Your task to perform on an android device: turn on improve location accuracy Image 0: 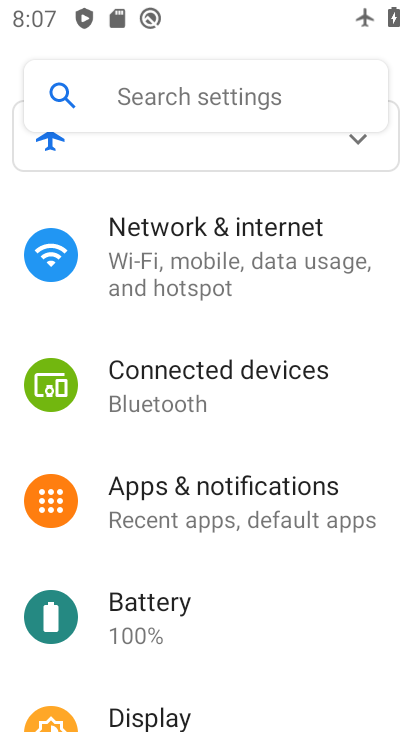
Step 0: drag from (342, 430) to (292, 78)
Your task to perform on an android device: turn on improve location accuracy Image 1: 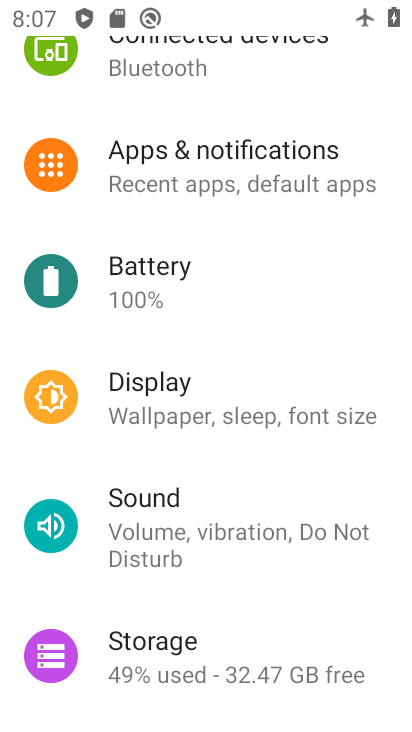
Step 1: drag from (196, 448) to (178, 11)
Your task to perform on an android device: turn on improve location accuracy Image 2: 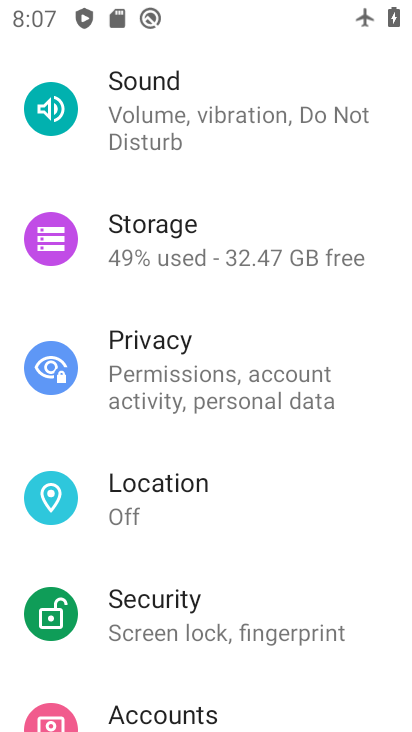
Step 2: click (159, 476)
Your task to perform on an android device: turn on improve location accuracy Image 3: 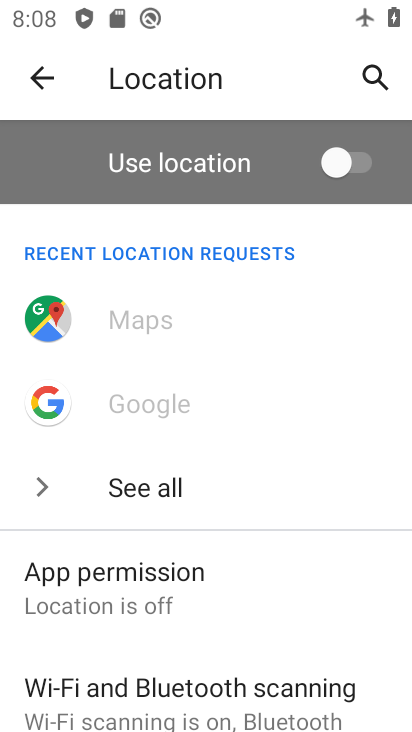
Step 3: drag from (379, 490) to (356, 264)
Your task to perform on an android device: turn on improve location accuracy Image 4: 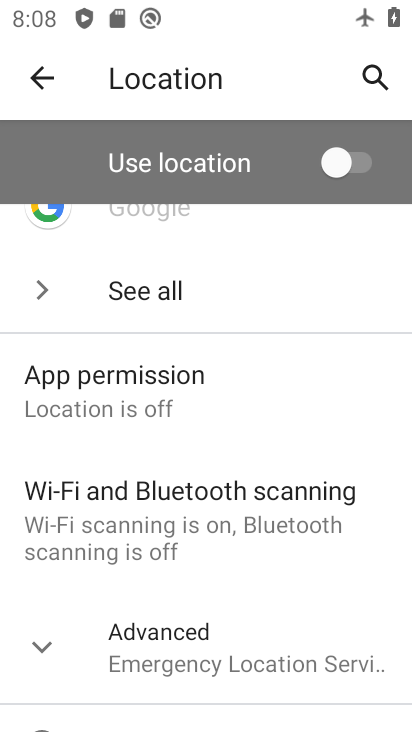
Step 4: click (177, 618)
Your task to perform on an android device: turn on improve location accuracy Image 5: 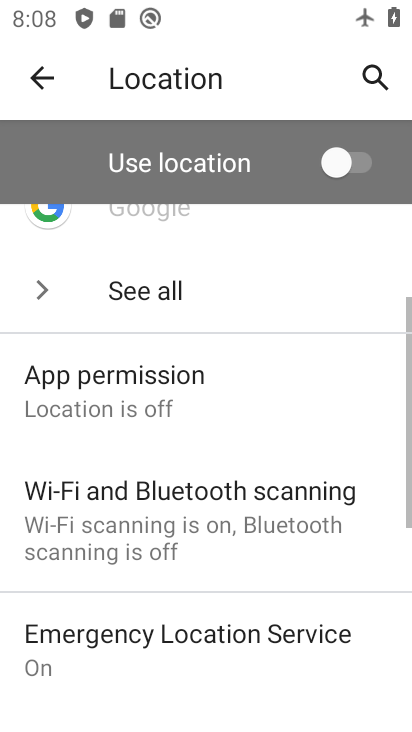
Step 5: drag from (191, 600) to (206, 152)
Your task to perform on an android device: turn on improve location accuracy Image 6: 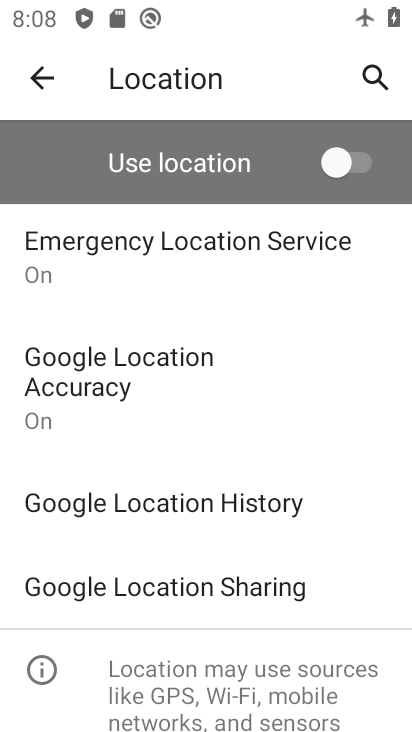
Step 6: click (168, 399)
Your task to perform on an android device: turn on improve location accuracy Image 7: 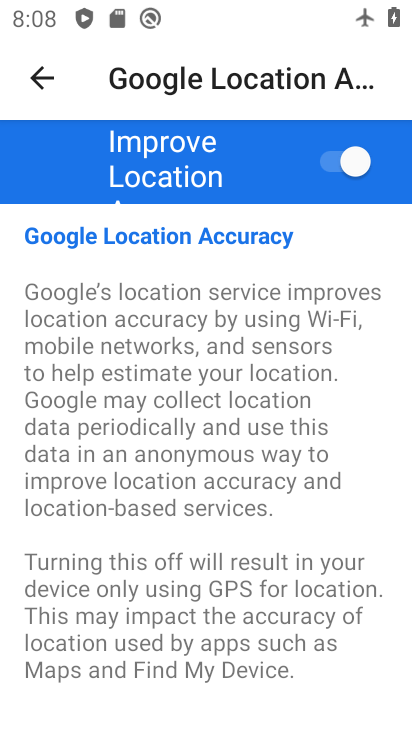
Step 7: task complete